Your task to perform on an android device: Open the calendar and show me this week's events? Image 0: 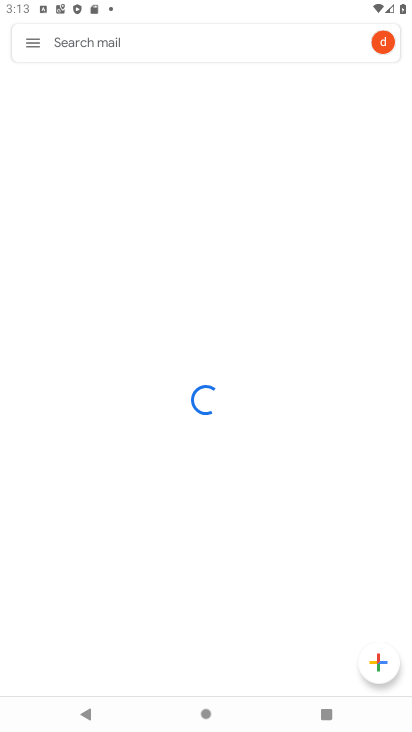
Step 0: press home button
Your task to perform on an android device: Open the calendar and show me this week's events? Image 1: 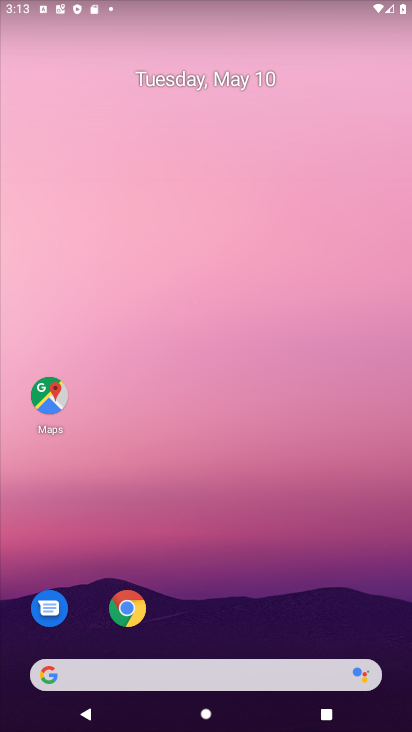
Step 1: drag from (366, 609) to (276, 89)
Your task to perform on an android device: Open the calendar and show me this week's events? Image 2: 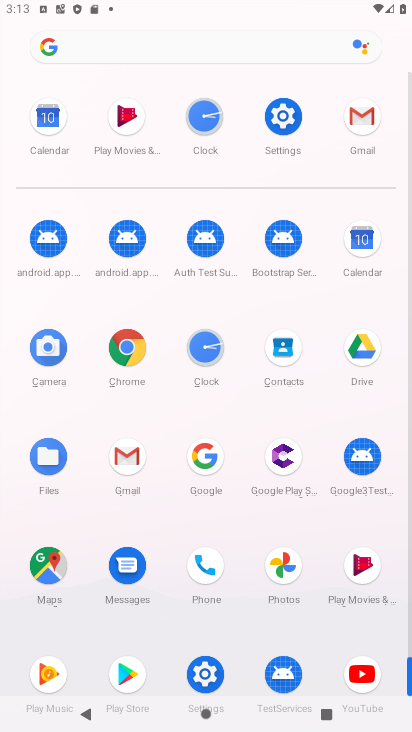
Step 2: click (360, 235)
Your task to perform on an android device: Open the calendar and show me this week's events? Image 3: 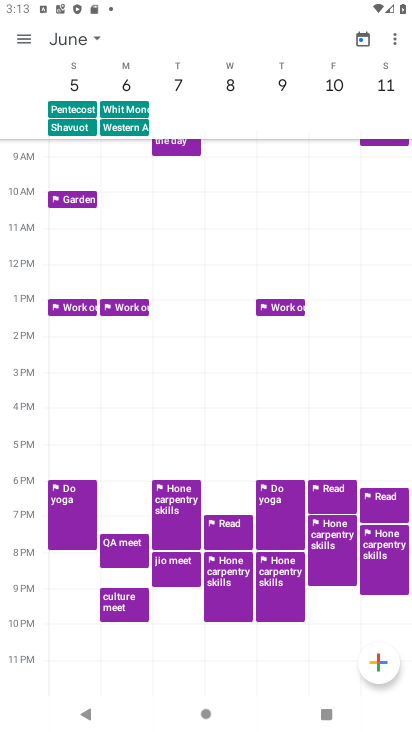
Step 3: click (94, 38)
Your task to perform on an android device: Open the calendar and show me this week's events? Image 4: 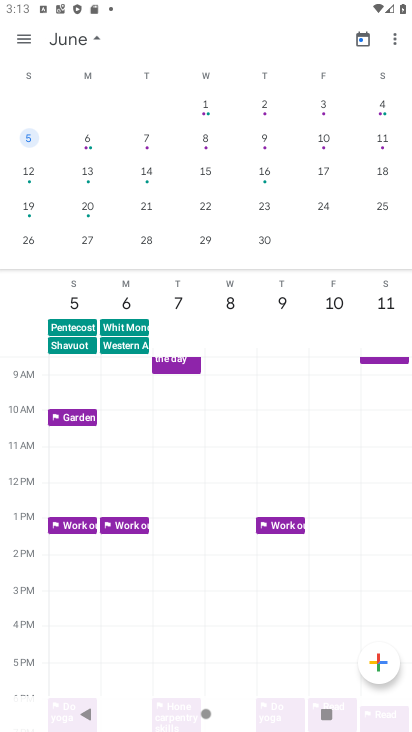
Step 4: drag from (16, 179) to (409, 191)
Your task to perform on an android device: Open the calendar and show me this week's events? Image 5: 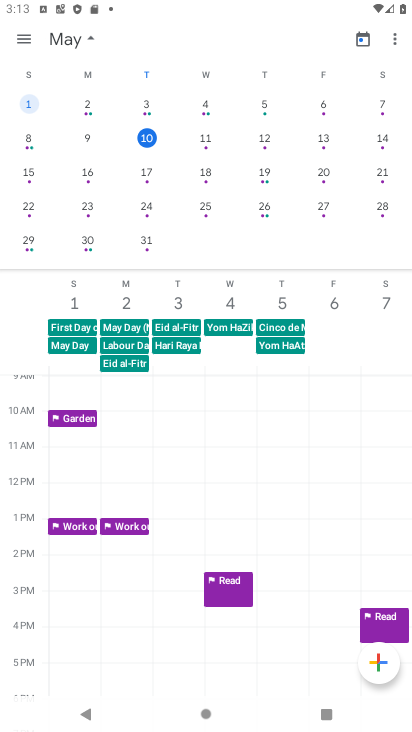
Step 5: click (144, 134)
Your task to perform on an android device: Open the calendar and show me this week's events? Image 6: 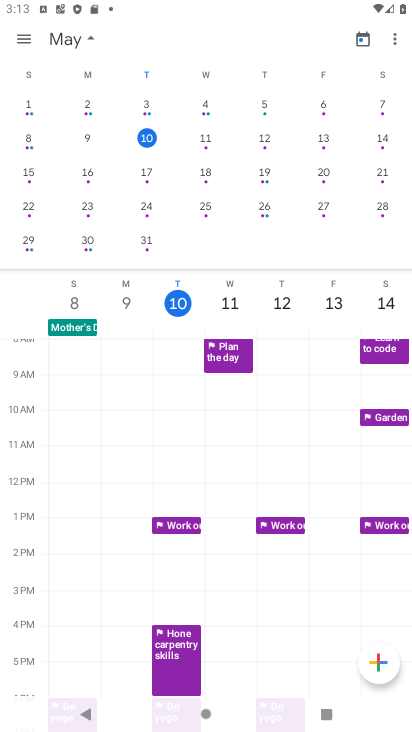
Step 6: task complete